Your task to perform on an android device: Go to Android settings Image 0: 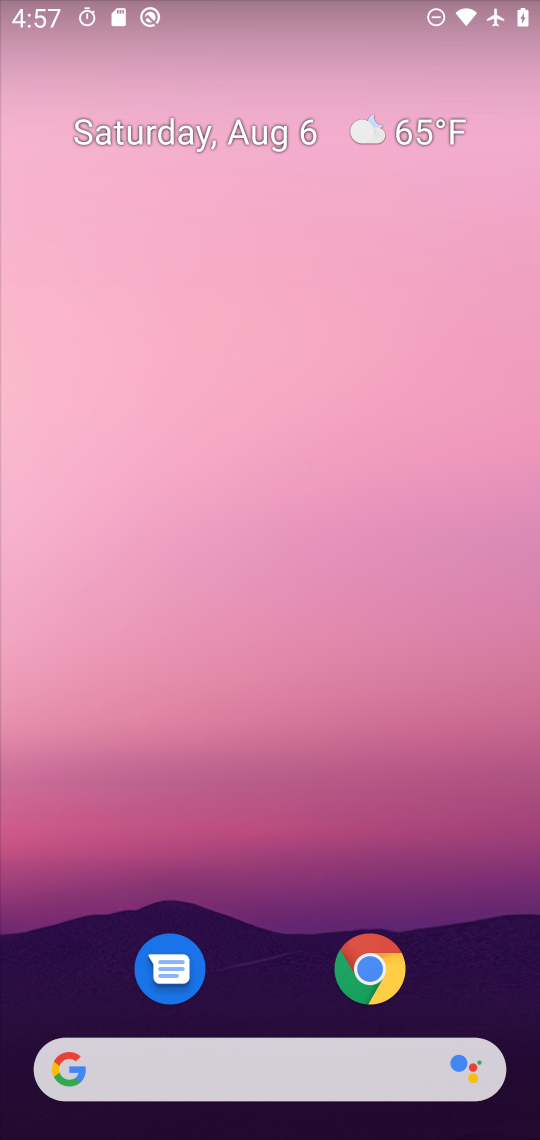
Step 0: drag from (321, 1001) to (266, 3)
Your task to perform on an android device: Go to Android settings Image 1: 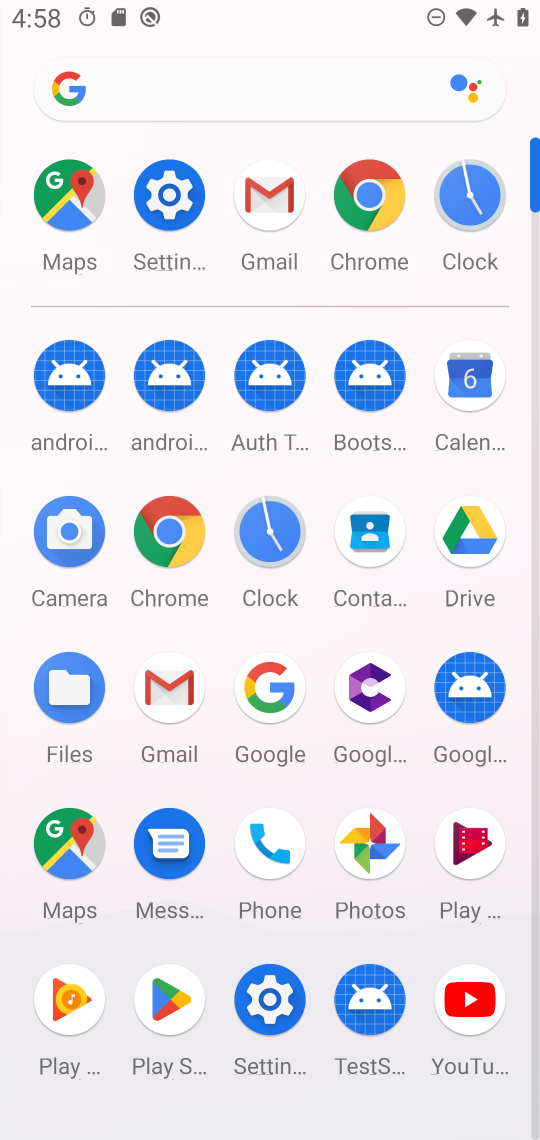
Step 1: click (250, 1014)
Your task to perform on an android device: Go to Android settings Image 2: 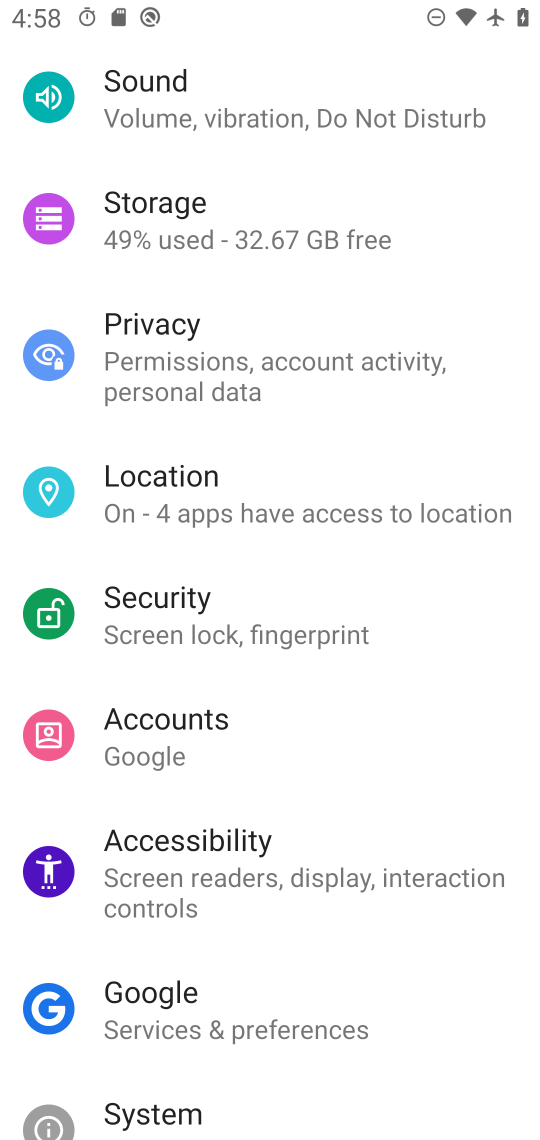
Step 2: task complete